Your task to perform on an android device: Open Maps and search for coffee Image 0: 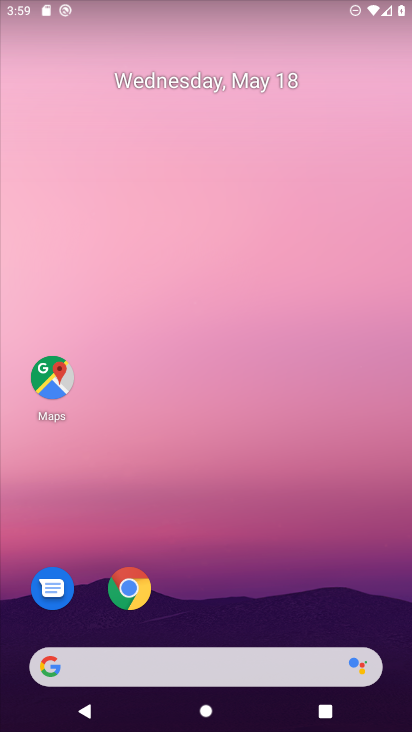
Step 0: drag from (250, 575) to (265, 318)
Your task to perform on an android device: Open Maps and search for coffee Image 1: 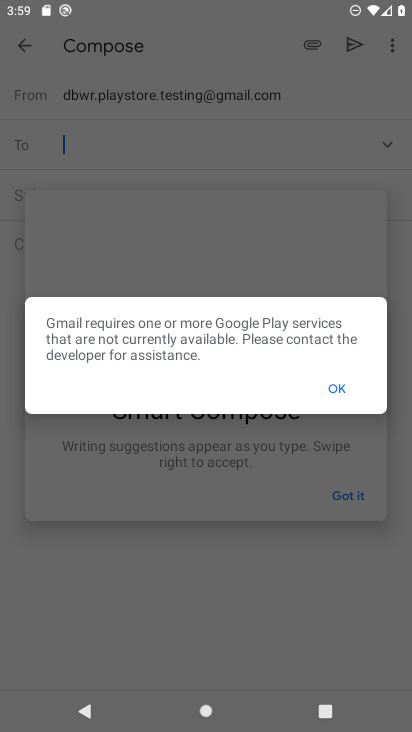
Step 1: click (51, 393)
Your task to perform on an android device: Open Maps and search for coffee Image 2: 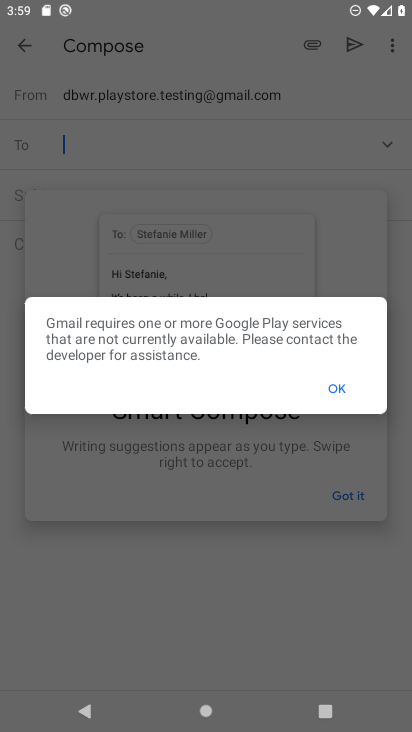
Step 2: click (338, 392)
Your task to perform on an android device: Open Maps and search for coffee Image 3: 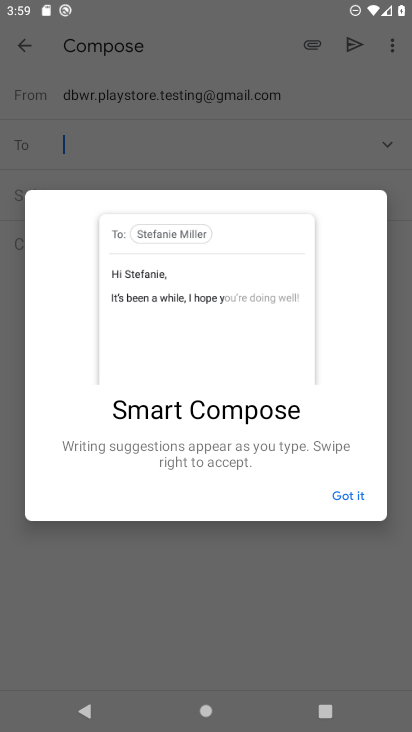
Step 3: click (356, 490)
Your task to perform on an android device: Open Maps and search for coffee Image 4: 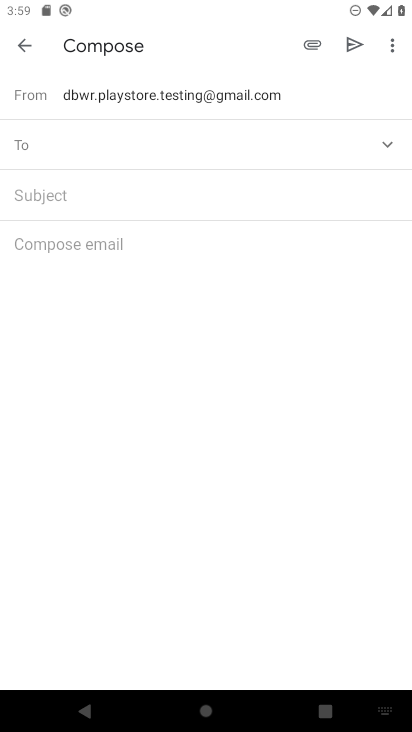
Step 4: click (17, 47)
Your task to perform on an android device: Open Maps and search for coffee Image 5: 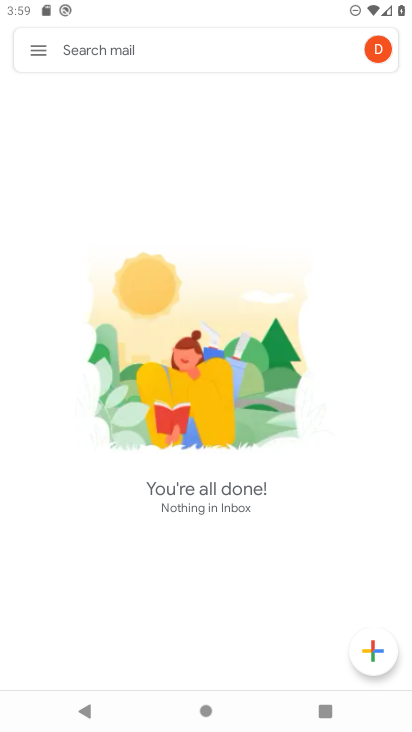
Step 5: press home button
Your task to perform on an android device: Open Maps and search for coffee Image 6: 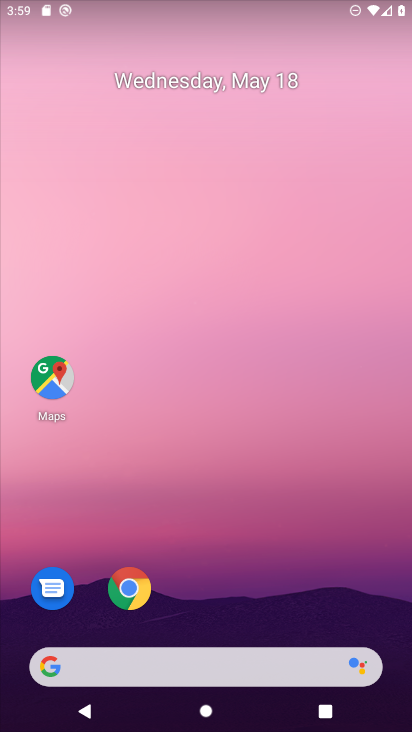
Step 6: click (53, 386)
Your task to perform on an android device: Open Maps and search for coffee Image 7: 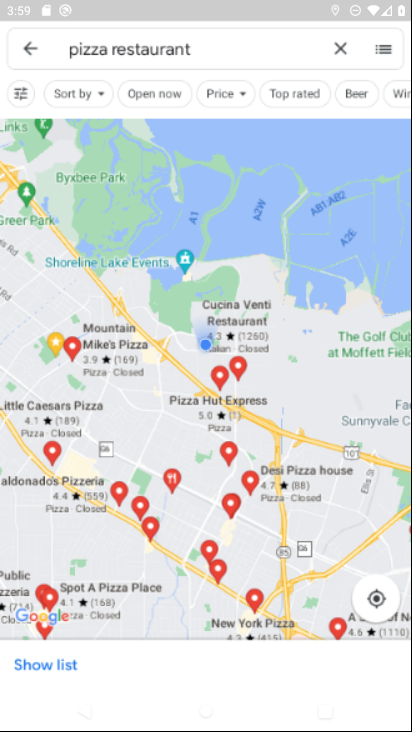
Step 7: click (343, 50)
Your task to perform on an android device: Open Maps and search for coffee Image 8: 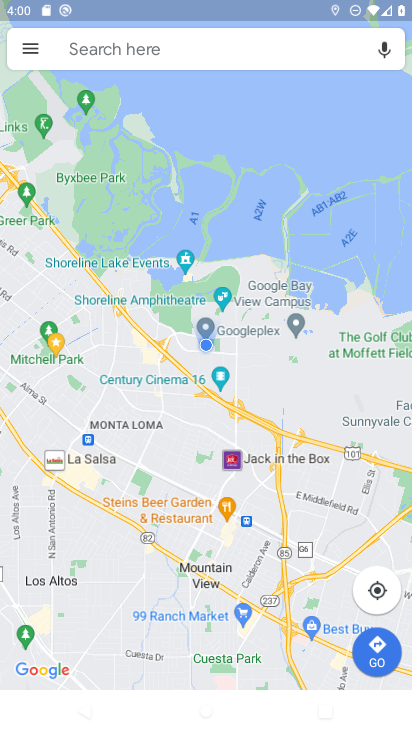
Step 8: type "coffee"
Your task to perform on an android device: Open Maps and search for coffee Image 9: 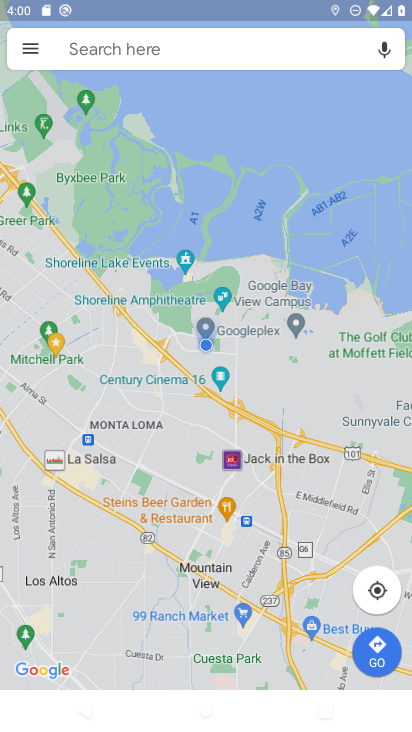
Step 9: click (185, 54)
Your task to perform on an android device: Open Maps and search for coffee Image 10: 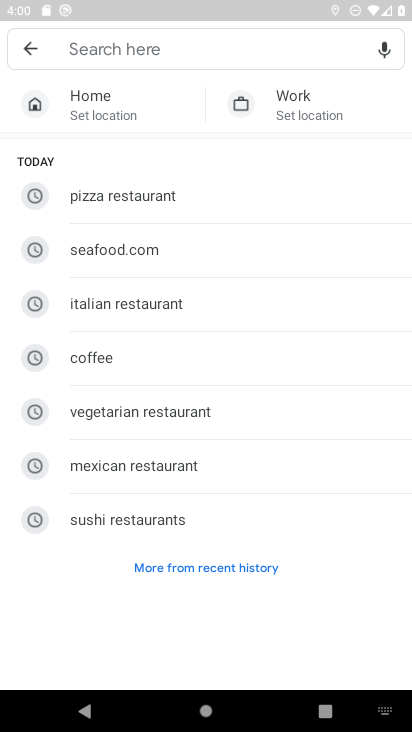
Step 10: click (123, 344)
Your task to perform on an android device: Open Maps and search for coffee Image 11: 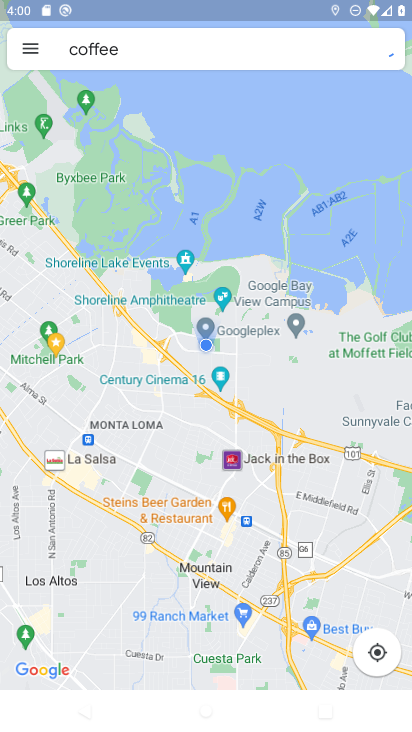
Step 11: task complete